Your task to perform on an android device: Do I have any events today? Image 0: 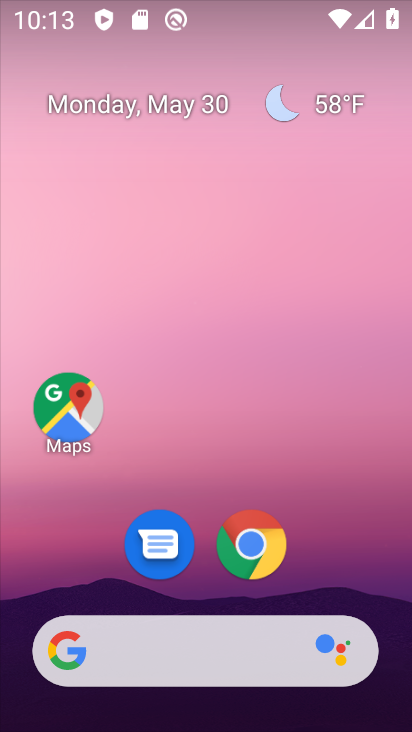
Step 0: drag from (380, 581) to (351, 61)
Your task to perform on an android device: Do I have any events today? Image 1: 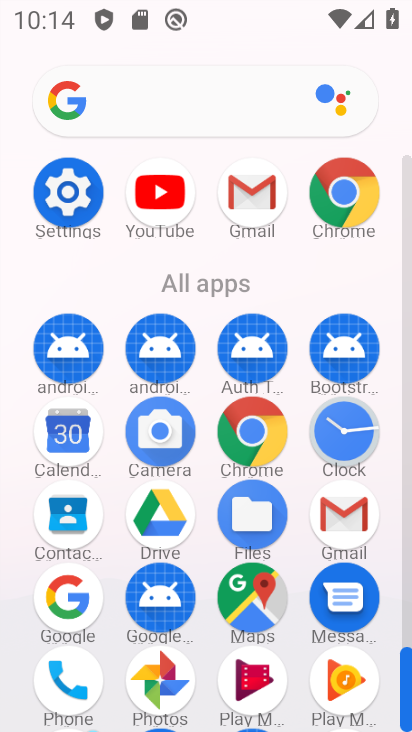
Step 1: click (60, 440)
Your task to perform on an android device: Do I have any events today? Image 2: 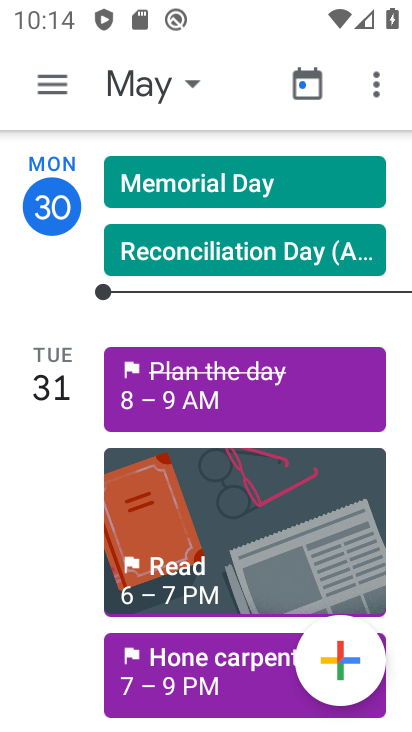
Step 2: task complete